Your task to perform on an android device: Go to settings Image 0: 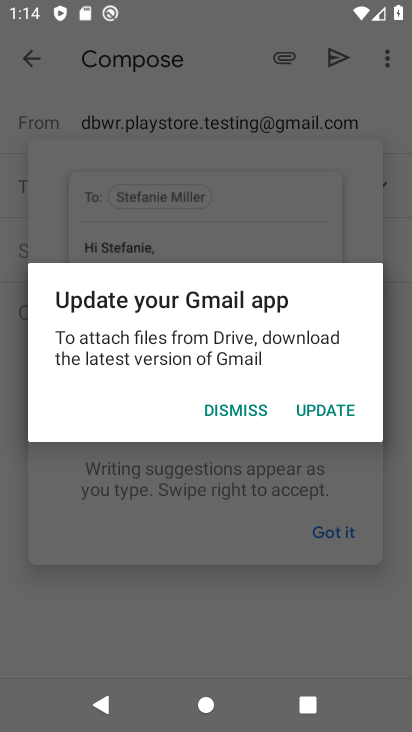
Step 0: press home button
Your task to perform on an android device: Go to settings Image 1: 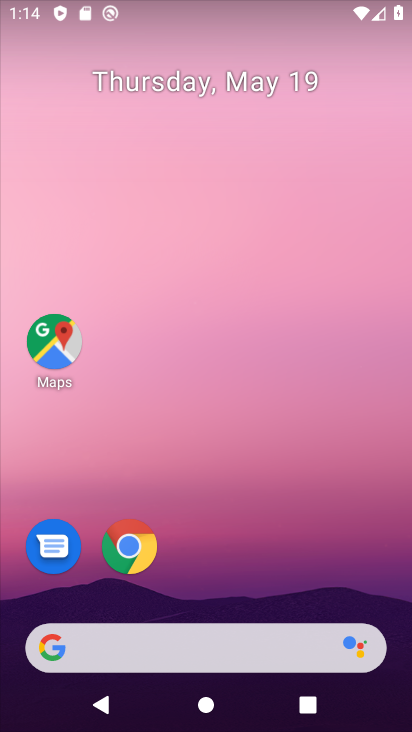
Step 1: drag from (264, 543) to (410, 114)
Your task to perform on an android device: Go to settings Image 2: 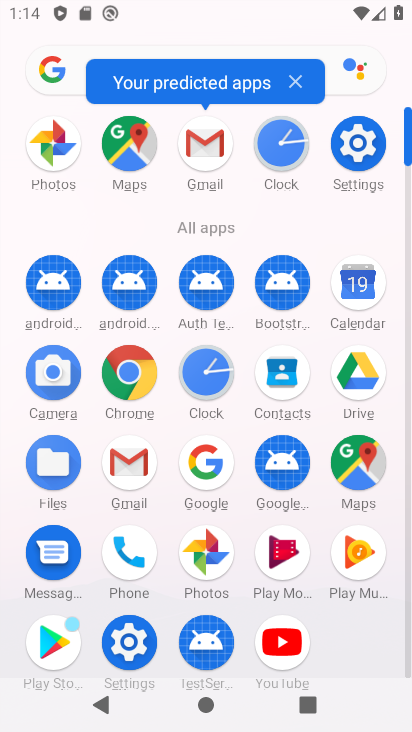
Step 2: click (362, 150)
Your task to perform on an android device: Go to settings Image 3: 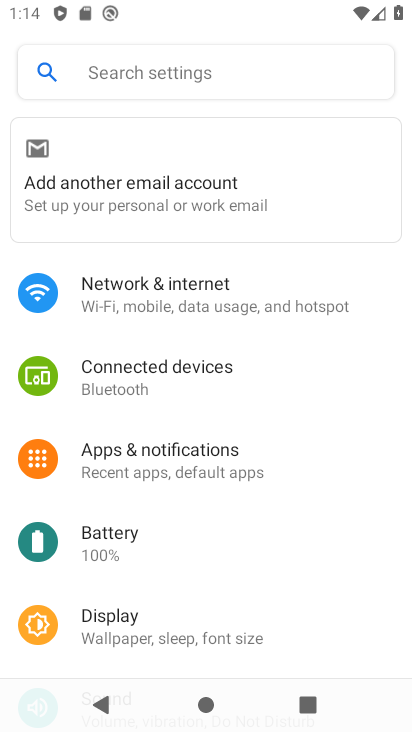
Step 3: task complete